Your task to perform on an android device: toggle translation in the chrome app Image 0: 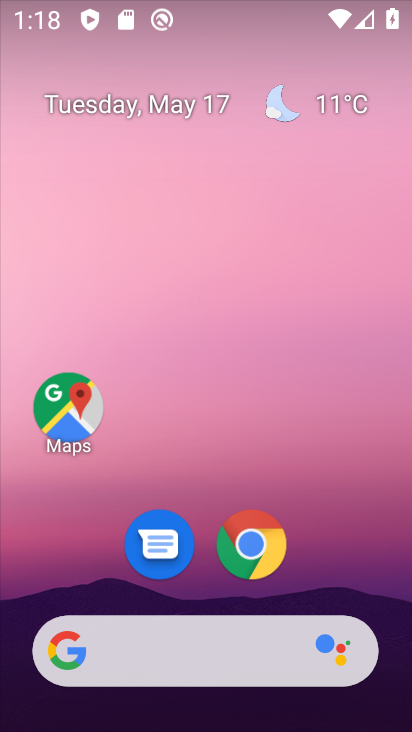
Step 0: click (259, 552)
Your task to perform on an android device: toggle translation in the chrome app Image 1: 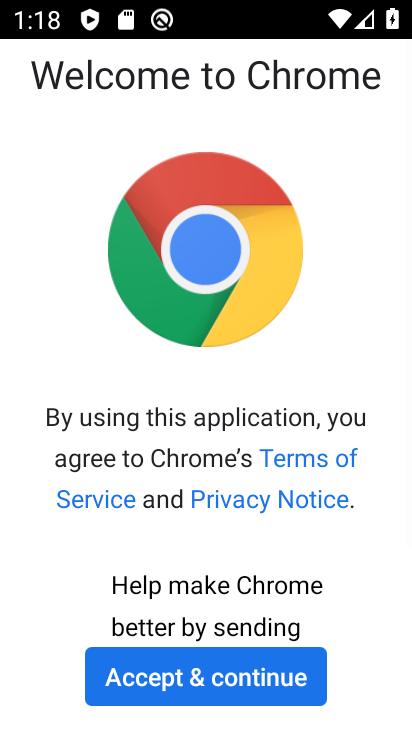
Step 1: click (249, 674)
Your task to perform on an android device: toggle translation in the chrome app Image 2: 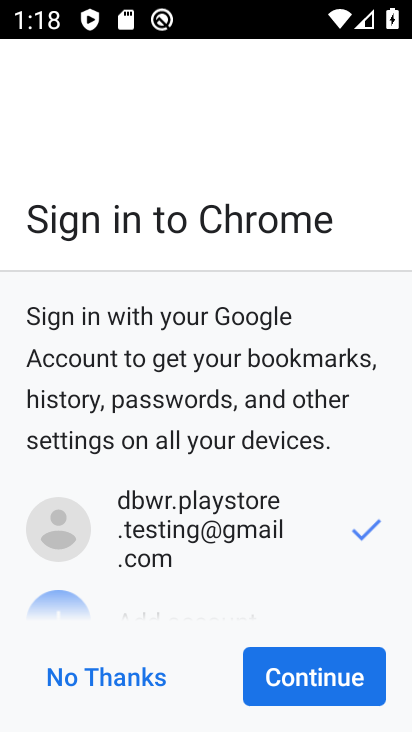
Step 2: click (391, 676)
Your task to perform on an android device: toggle translation in the chrome app Image 3: 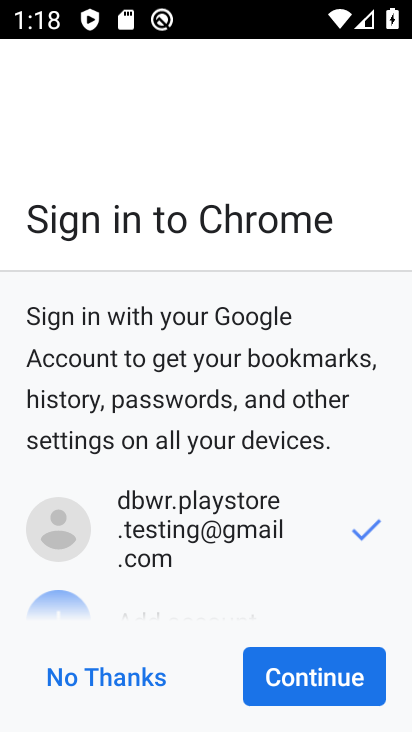
Step 3: click (376, 676)
Your task to perform on an android device: toggle translation in the chrome app Image 4: 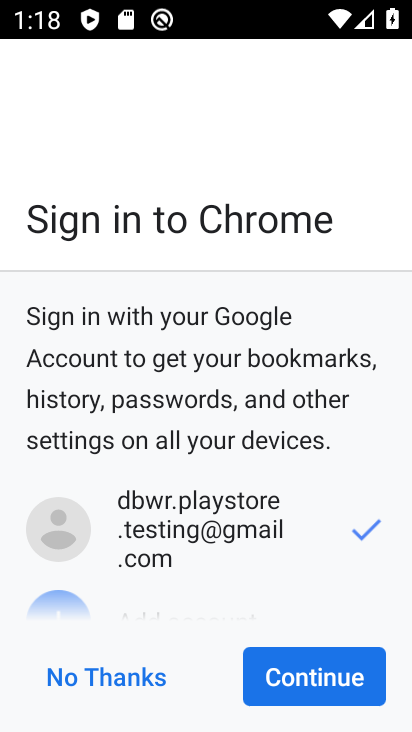
Step 4: click (375, 676)
Your task to perform on an android device: toggle translation in the chrome app Image 5: 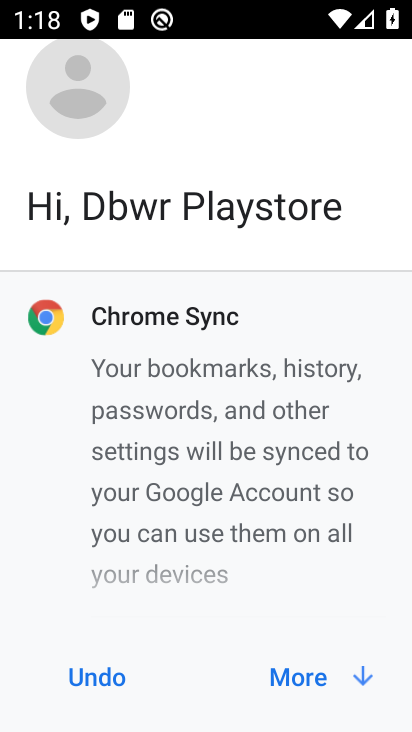
Step 5: click (375, 676)
Your task to perform on an android device: toggle translation in the chrome app Image 6: 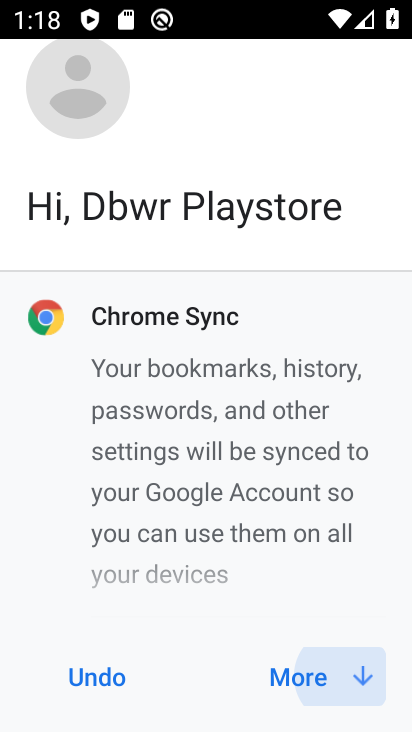
Step 6: click (375, 676)
Your task to perform on an android device: toggle translation in the chrome app Image 7: 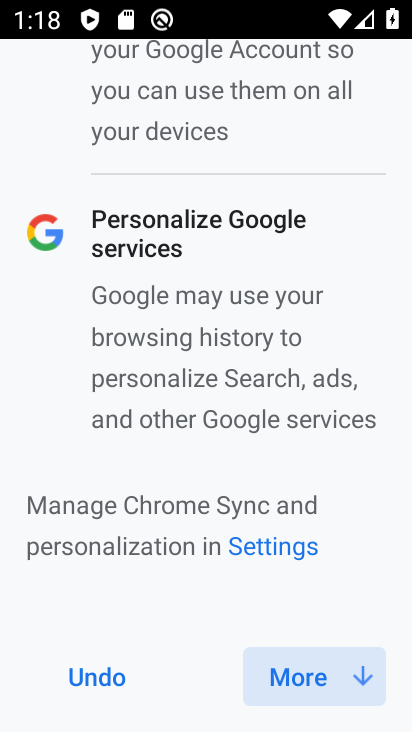
Step 7: click (375, 676)
Your task to perform on an android device: toggle translation in the chrome app Image 8: 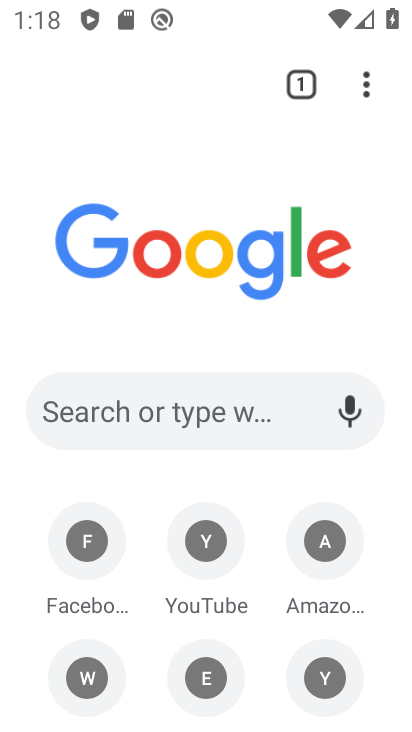
Step 8: drag from (372, 86) to (143, 583)
Your task to perform on an android device: toggle translation in the chrome app Image 9: 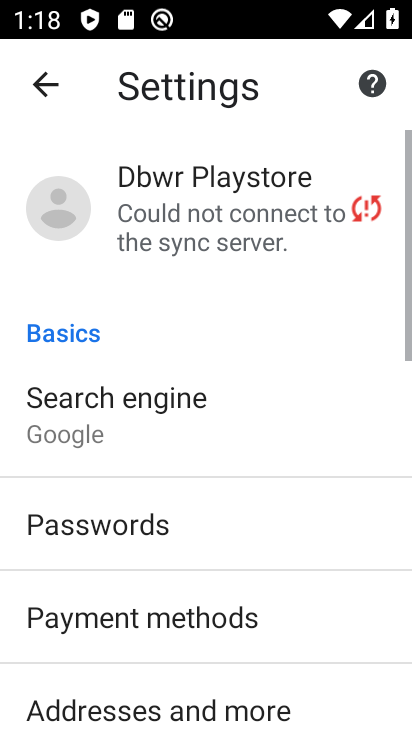
Step 9: drag from (142, 630) to (200, 85)
Your task to perform on an android device: toggle translation in the chrome app Image 10: 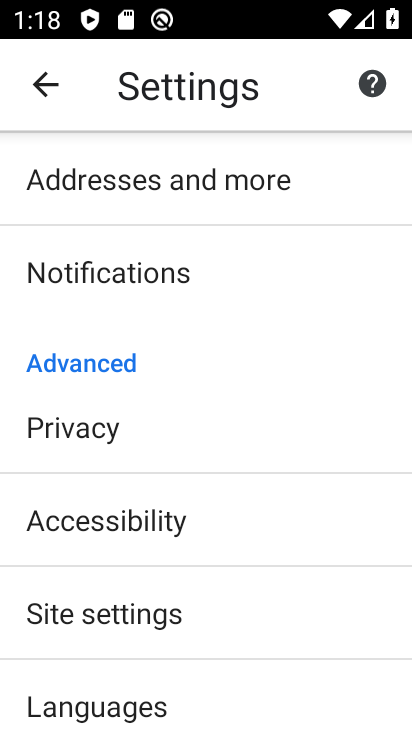
Step 10: click (183, 706)
Your task to perform on an android device: toggle translation in the chrome app Image 11: 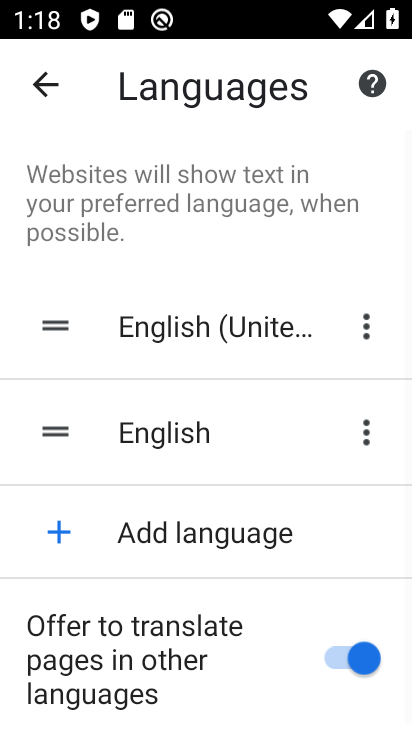
Step 11: click (339, 658)
Your task to perform on an android device: toggle translation in the chrome app Image 12: 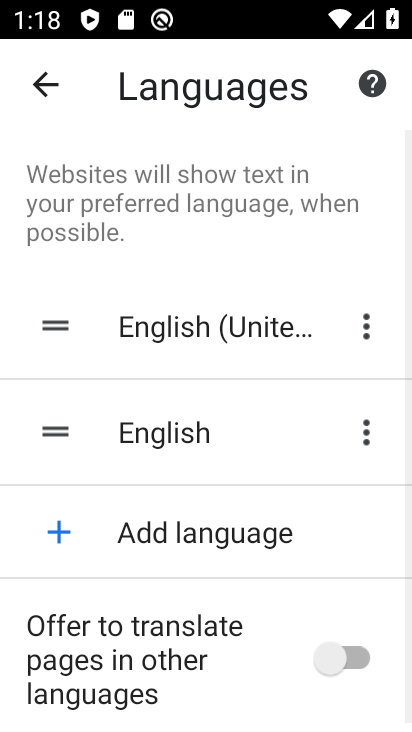
Step 12: task complete